Your task to perform on an android device: Go to Amazon Image 0: 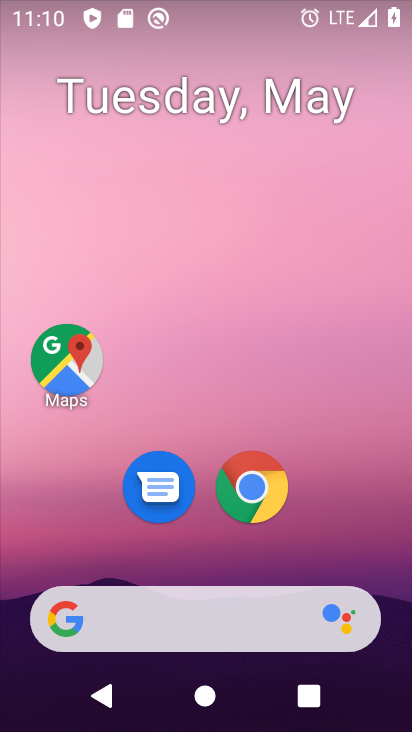
Step 0: drag from (191, 549) to (274, 149)
Your task to perform on an android device: Go to Amazon Image 1: 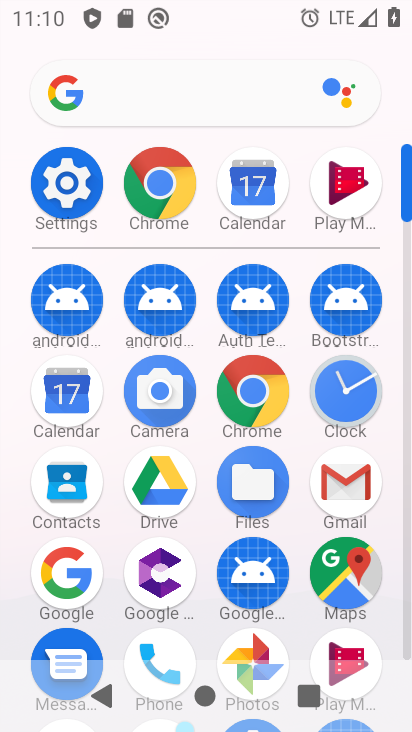
Step 1: click (167, 191)
Your task to perform on an android device: Go to Amazon Image 2: 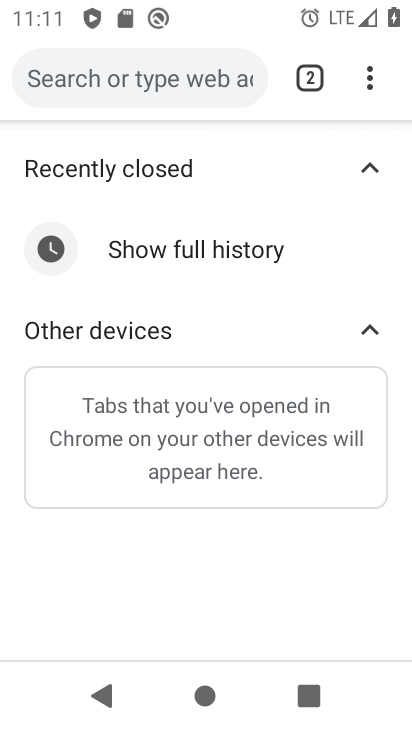
Step 2: drag from (222, 570) to (258, 295)
Your task to perform on an android device: Go to Amazon Image 3: 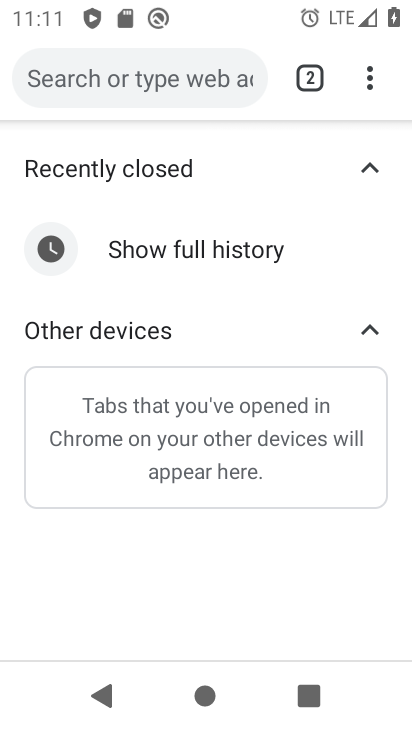
Step 3: click (331, 66)
Your task to perform on an android device: Go to Amazon Image 4: 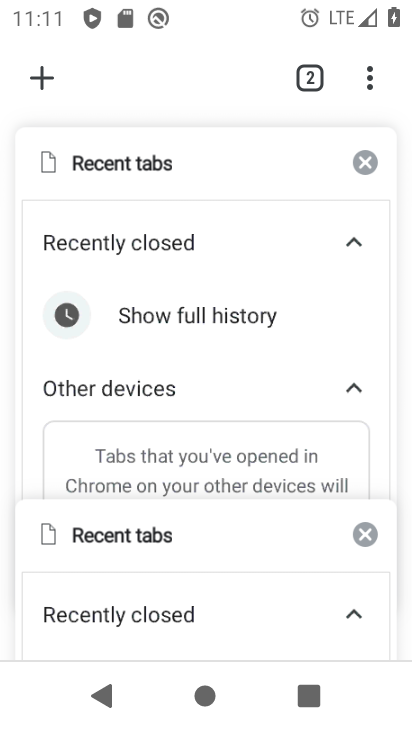
Step 4: click (242, 553)
Your task to perform on an android device: Go to Amazon Image 5: 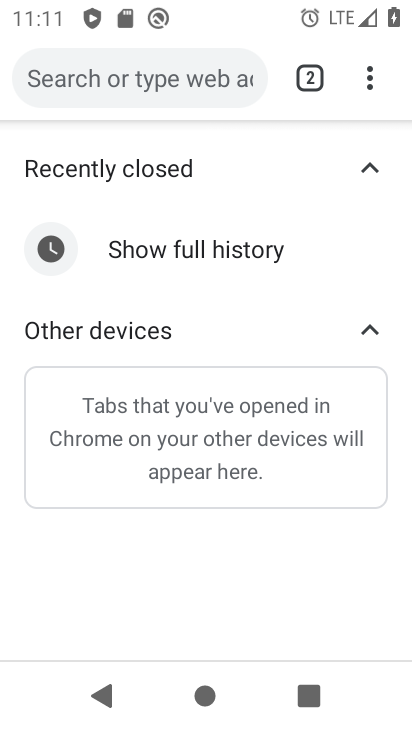
Step 5: click (314, 76)
Your task to perform on an android device: Go to Amazon Image 6: 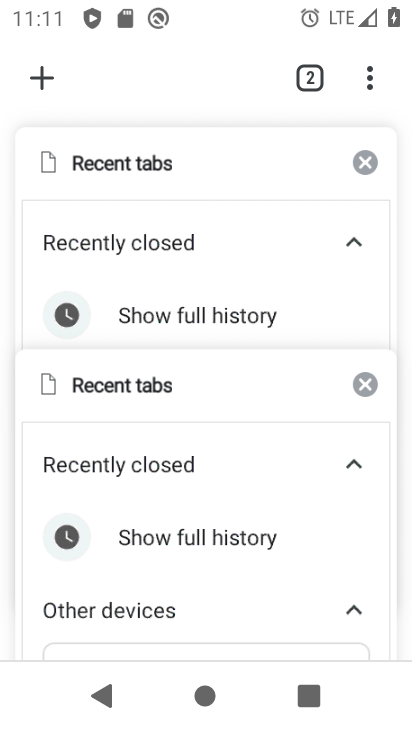
Step 6: click (36, 77)
Your task to perform on an android device: Go to Amazon Image 7: 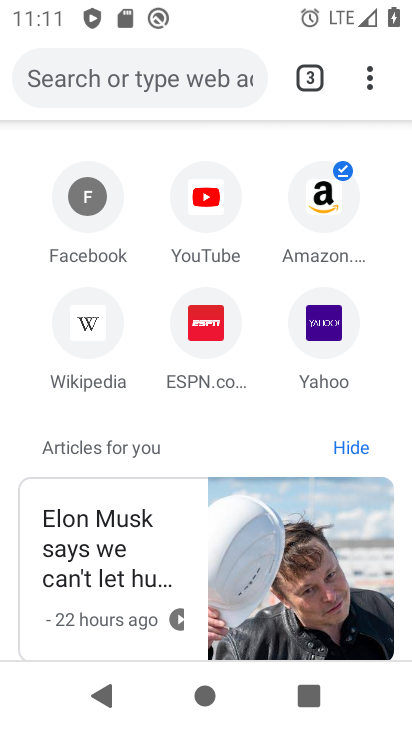
Step 7: click (320, 232)
Your task to perform on an android device: Go to Amazon Image 8: 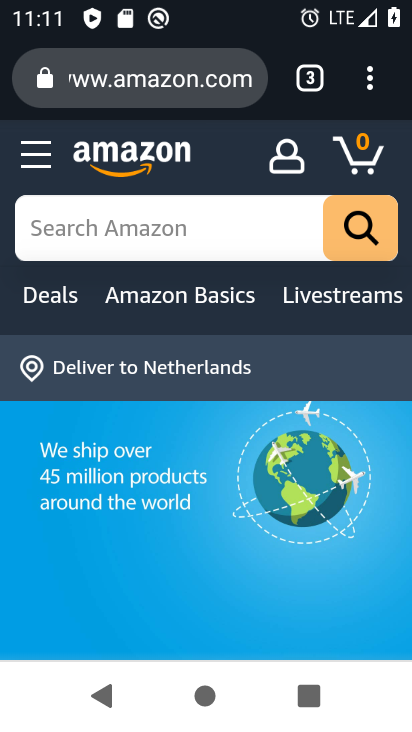
Step 8: task complete